Your task to perform on an android device: open a bookmark in the chrome app Image 0: 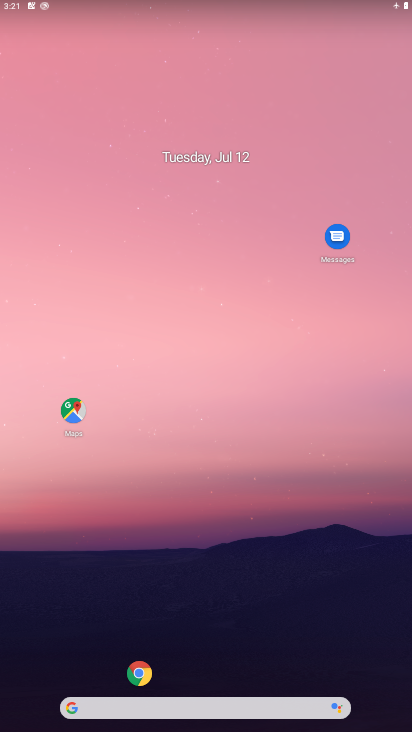
Step 0: click (139, 674)
Your task to perform on an android device: open a bookmark in the chrome app Image 1: 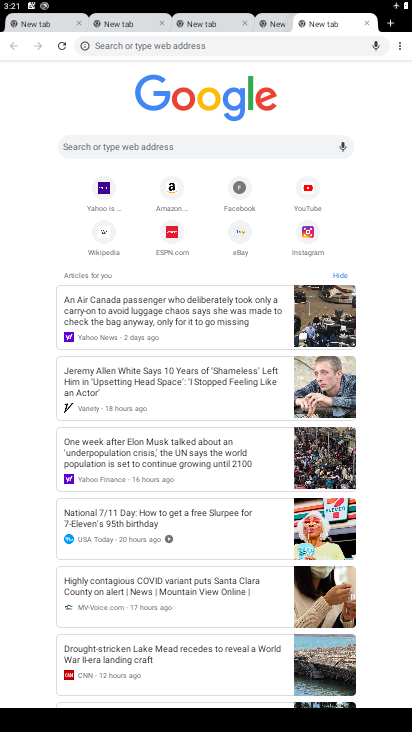
Step 1: click (394, 48)
Your task to perform on an android device: open a bookmark in the chrome app Image 2: 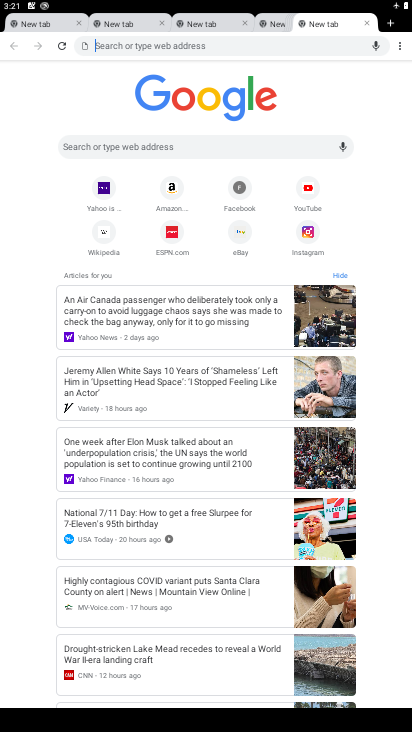
Step 2: click (402, 45)
Your task to perform on an android device: open a bookmark in the chrome app Image 3: 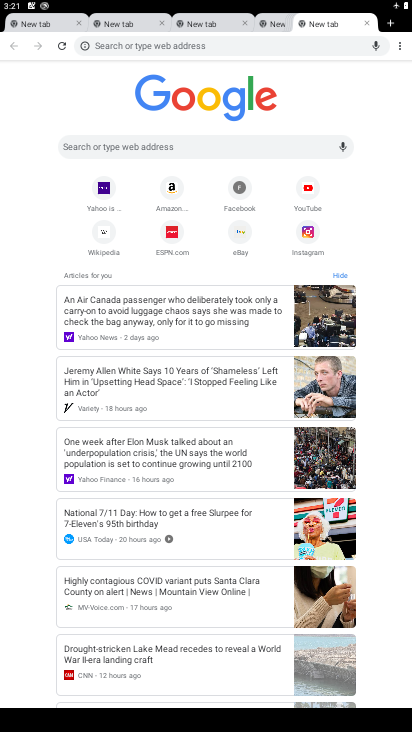
Step 3: click (402, 45)
Your task to perform on an android device: open a bookmark in the chrome app Image 4: 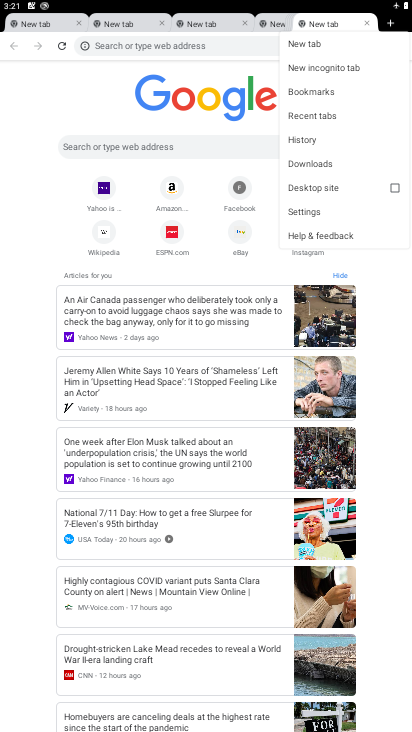
Step 4: click (329, 90)
Your task to perform on an android device: open a bookmark in the chrome app Image 5: 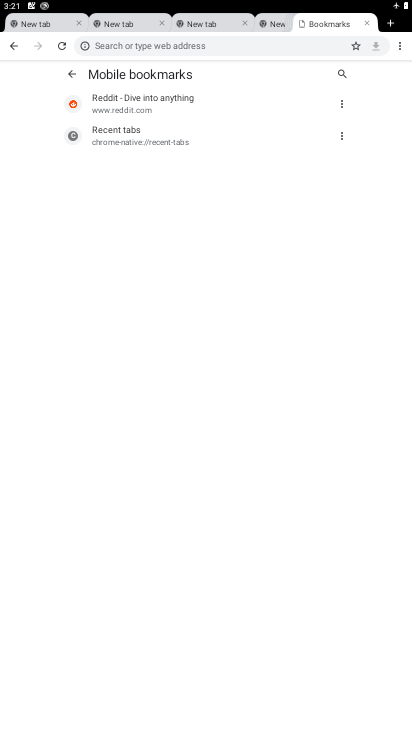
Step 5: task complete